Your task to perform on an android device: Toggle notifications for the Google Photos app Image 0: 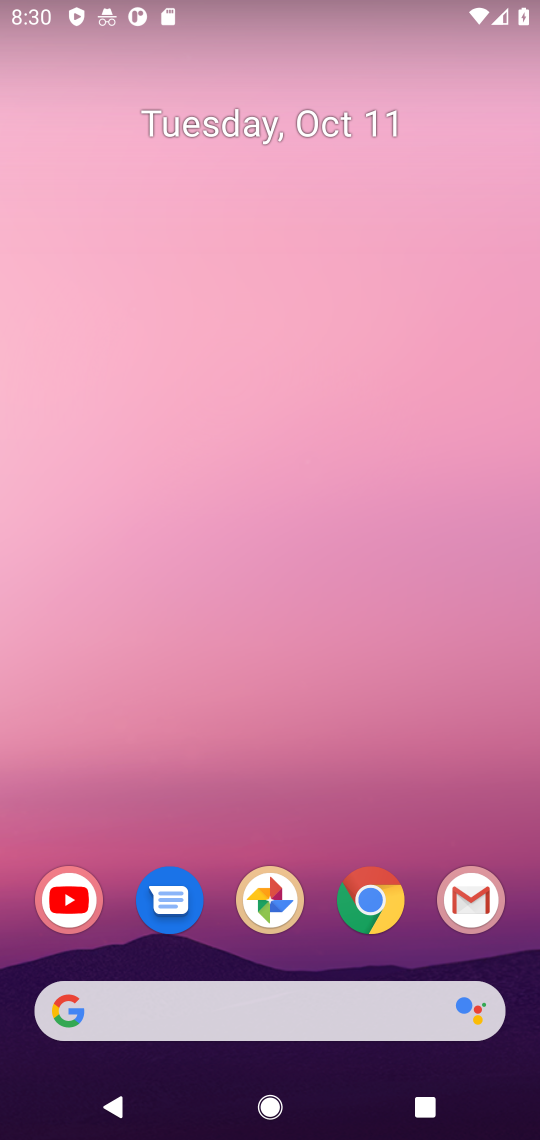
Step 0: drag from (324, 859) to (310, 803)
Your task to perform on an android device: Toggle notifications for the Google Photos app Image 1: 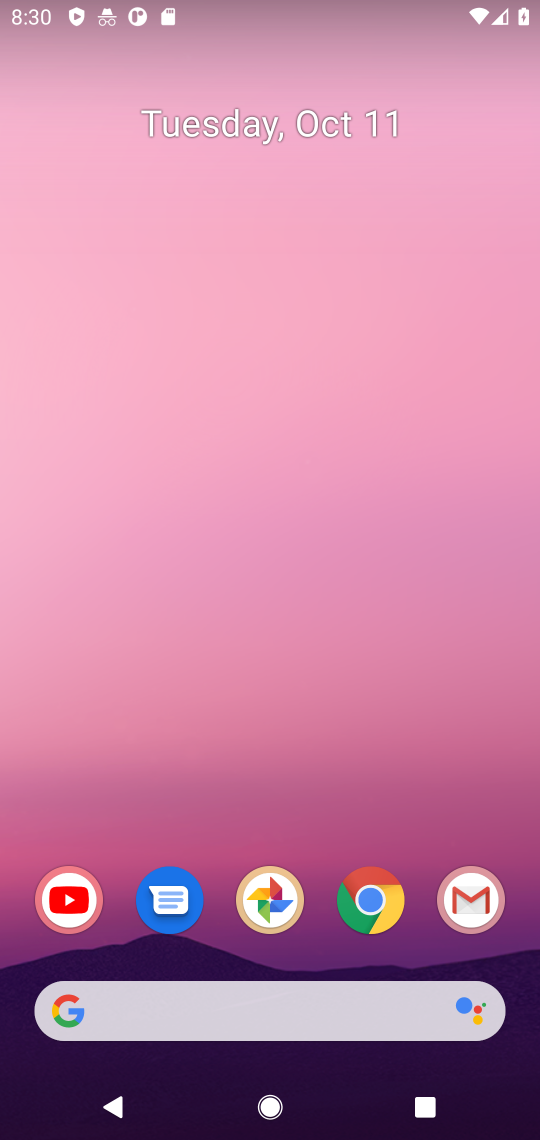
Step 1: click (278, 887)
Your task to perform on an android device: Toggle notifications for the Google Photos app Image 2: 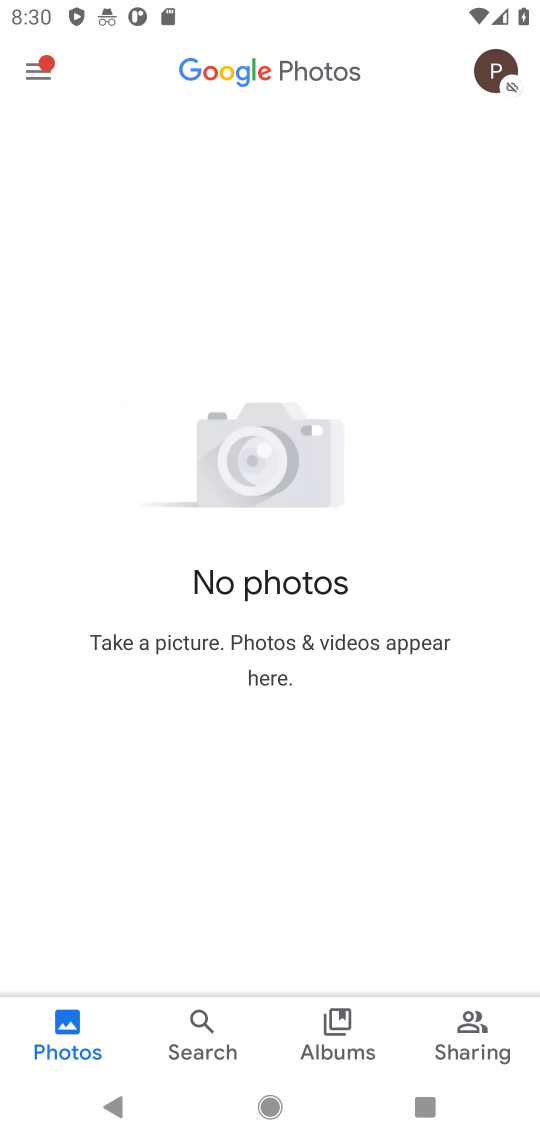
Step 2: press home button
Your task to perform on an android device: Toggle notifications for the Google Photos app Image 3: 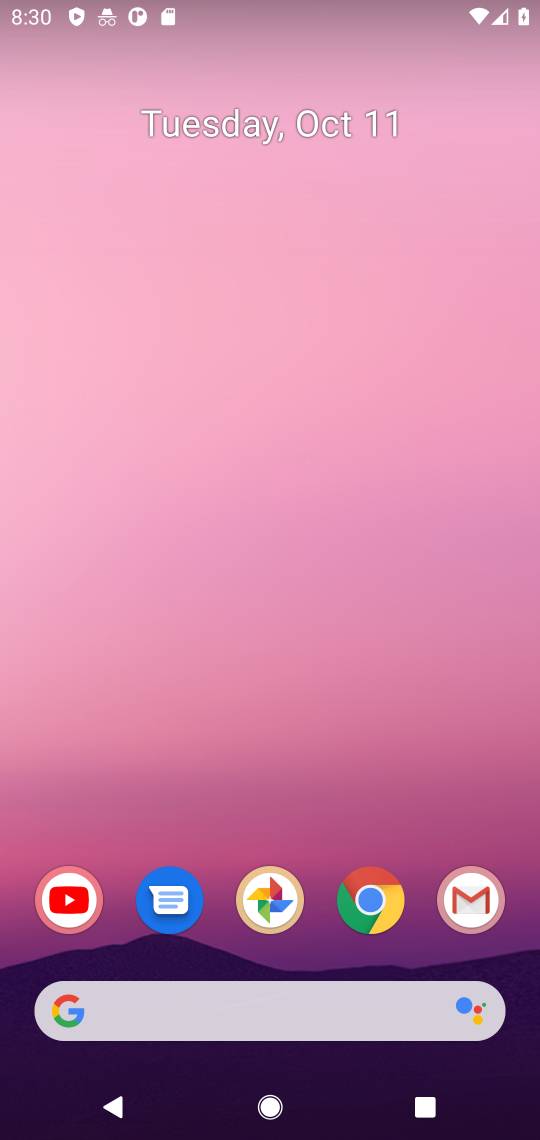
Step 3: click (257, 897)
Your task to perform on an android device: Toggle notifications for the Google Photos app Image 4: 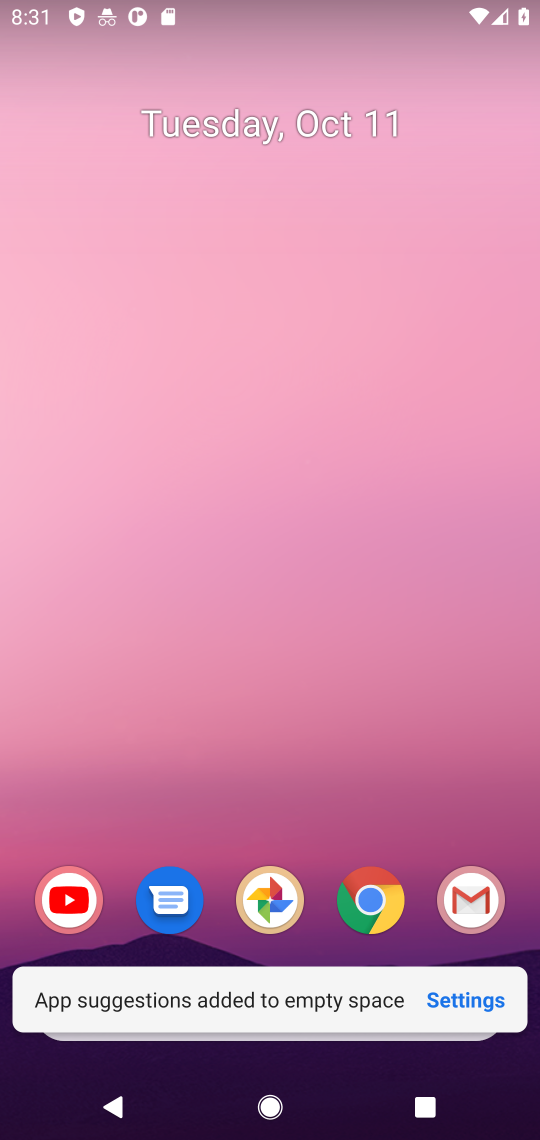
Step 4: click (257, 898)
Your task to perform on an android device: Toggle notifications for the Google Photos app Image 5: 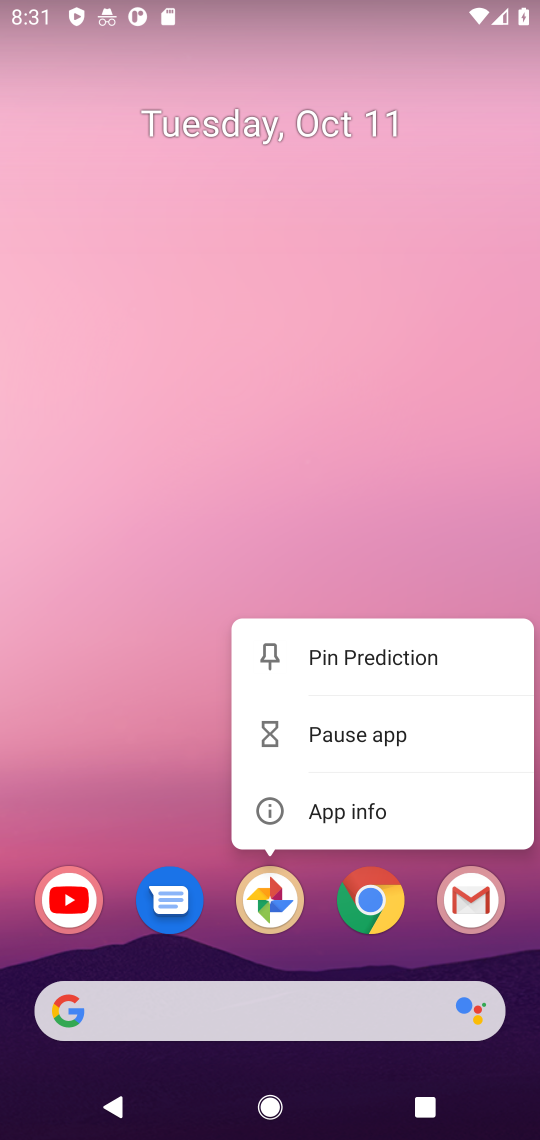
Step 5: click (330, 819)
Your task to perform on an android device: Toggle notifications for the Google Photos app Image 6: 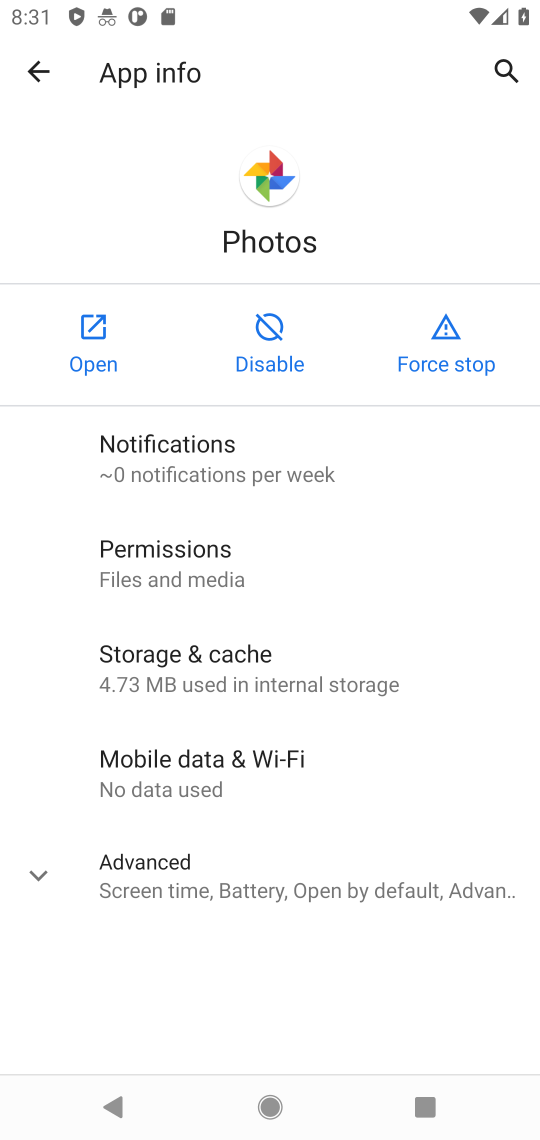
Step 6: click (233, 474)
Your task to perform on an android device: Toggle notifications for the Google Photos app Image 7: 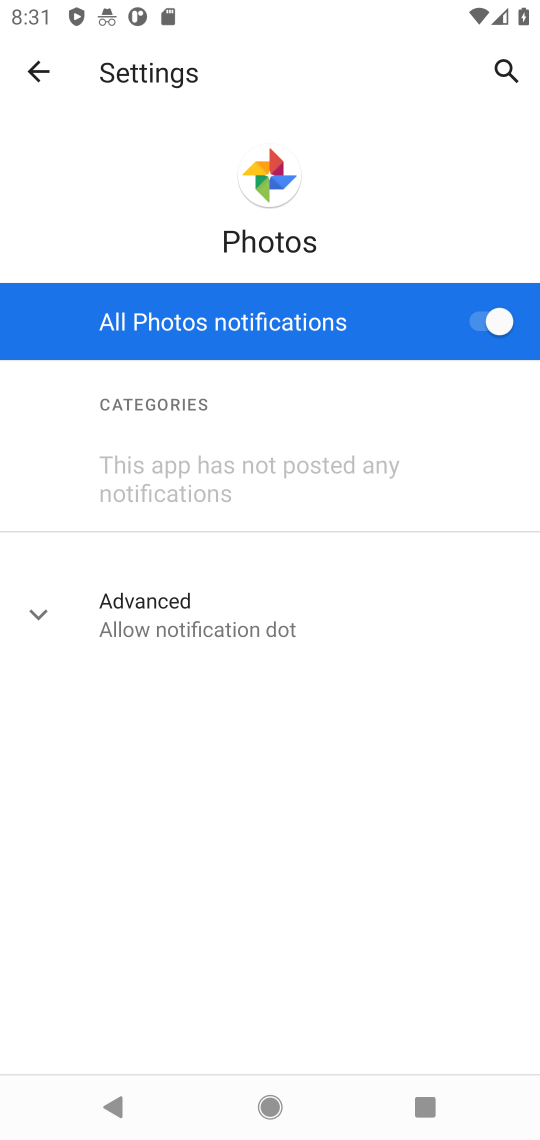
Step 7: click (506, 324)
Your task to perform on an android device: Toggle notifications for the Google Photos app Image 8: 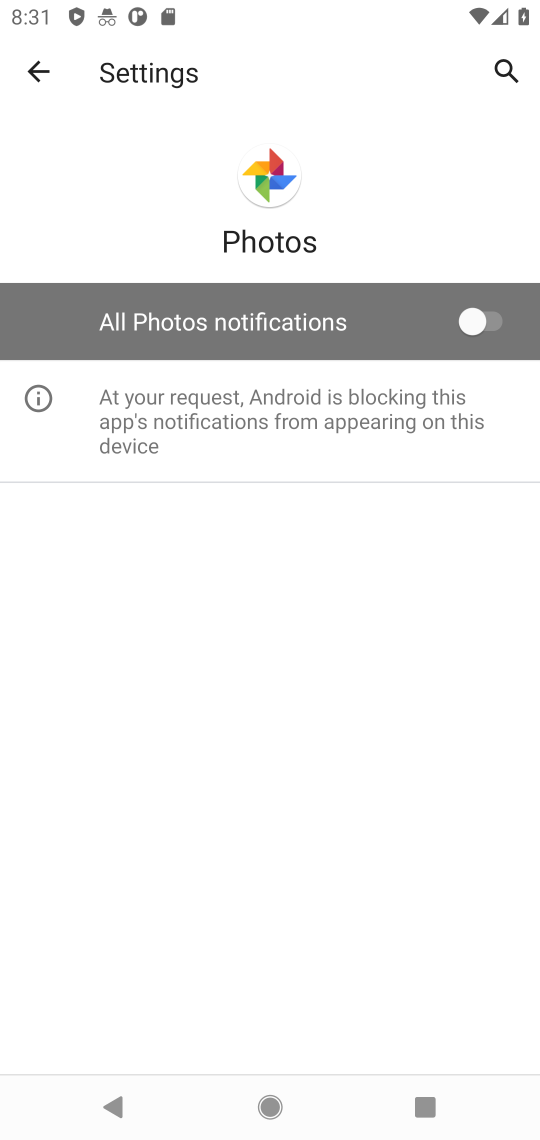
Step 8: task complete